Your task to perform on an android device: Open ESPN.com Image 0: 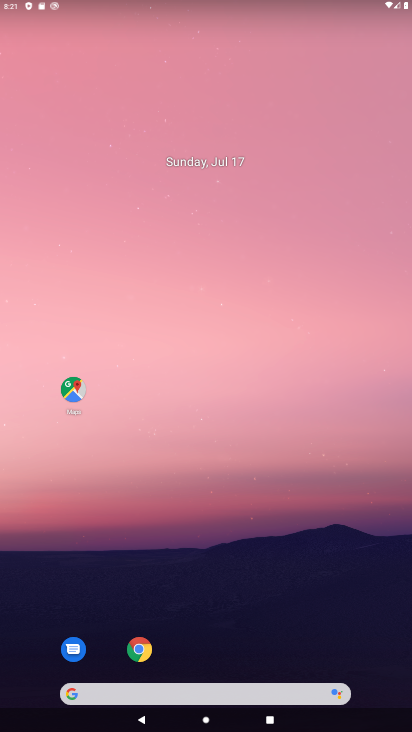
Step 0: drag from (194, 679) to (217, 246)
Your task to perform on an android device: Open ESPN.com Image 1: 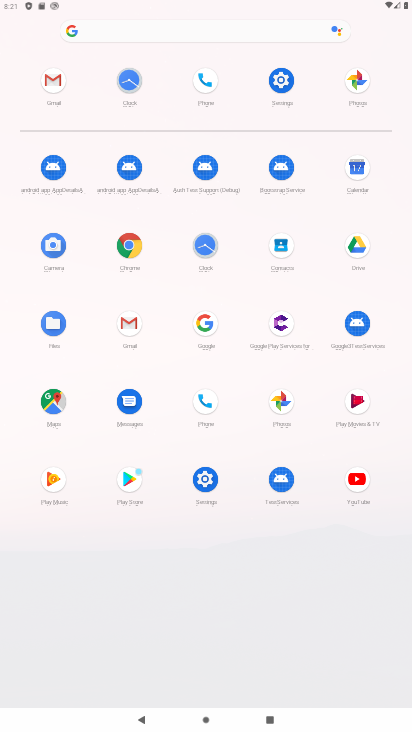
Step 1: click (205, 333)
Your task to perform on an android device: Open ESPN.com Image 2: 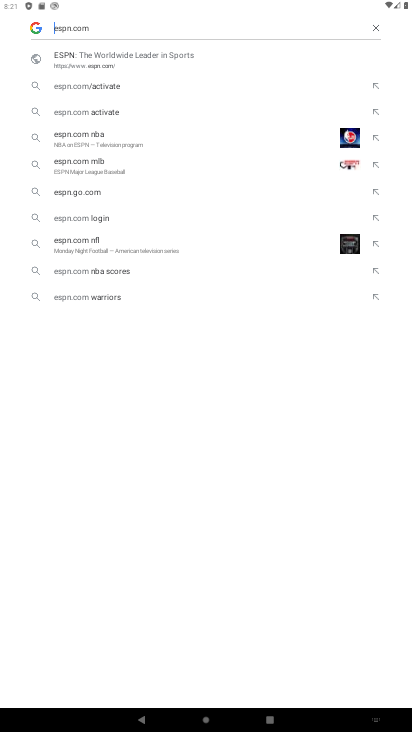
Step 2: click (256, 18)
Your task to perform on an android device: Open ESPN.com Image 3: 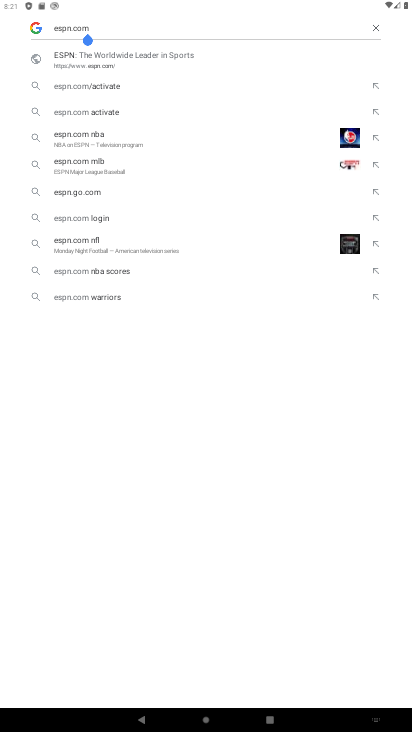
Step 3: click (373, 25)
Your task to perform on an android device: Open ESPN.com Image 4: 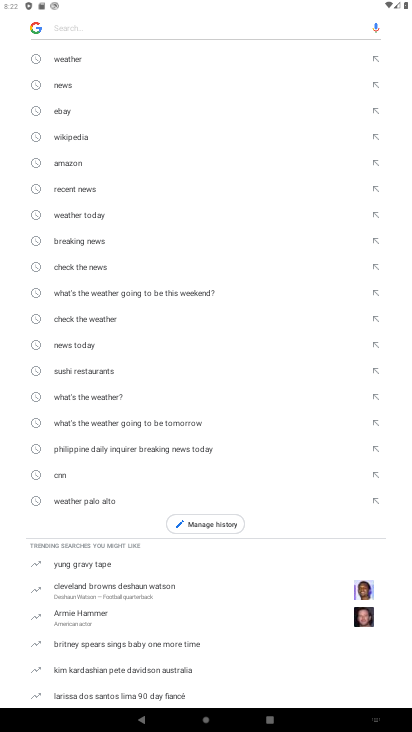
Step 4: type "espn.com"
Your task to perform on an android device: Open ESPN.com Image 5: 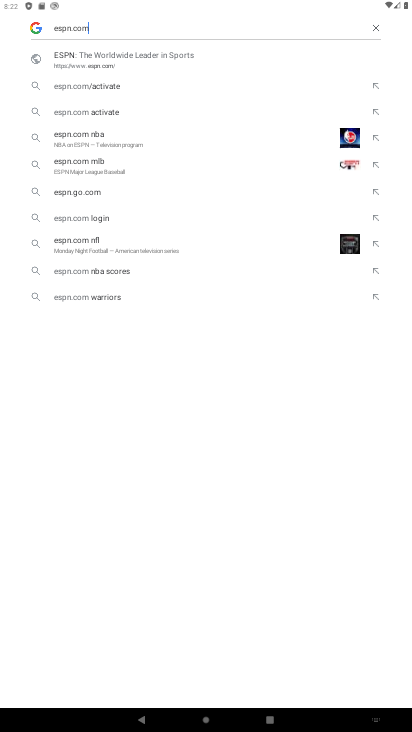
Step 5: click (151, 56)
Your task to perform on an android device: Open ESPN.com Image 6: 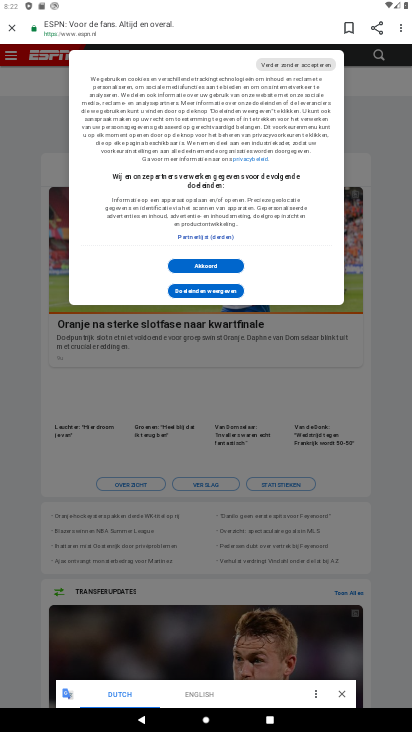
Step 6: task complete